Your task to perform on an android device: turn off priority inbox in the gmail app Image 0: 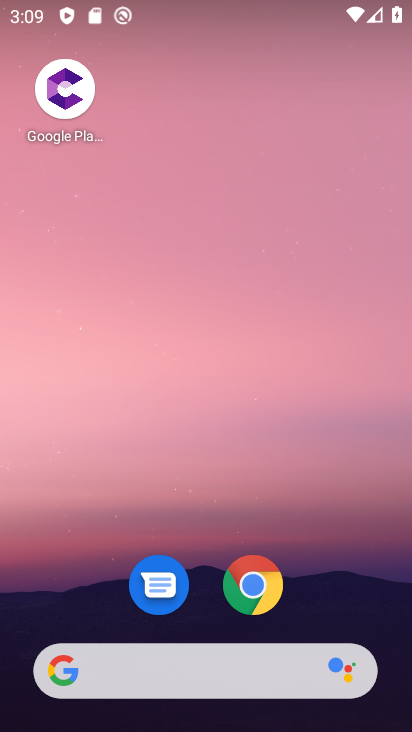
Step 0: drag from (161, 462) to (189, 47)
Your task to perform on an android device: turn off priority inbox in the gmail app Image 1: 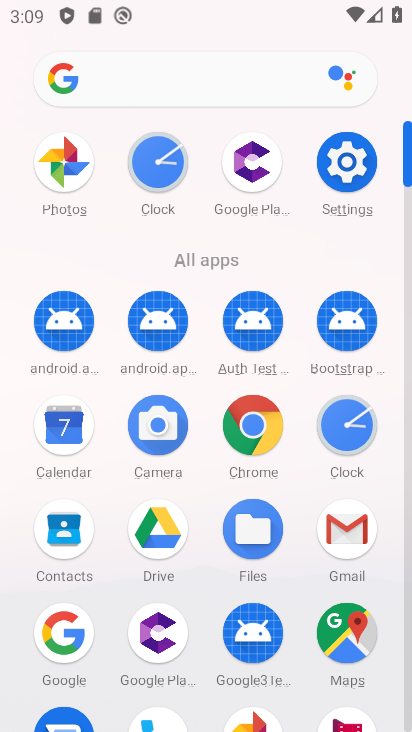
Step 1: click (349, 536)
Your task to perform on an android device: turn off priority inbox in the gmail app Image 2: 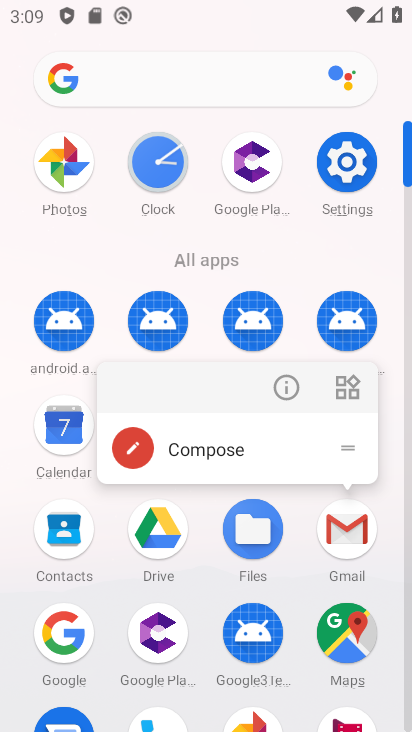
Step 2: click (351, 526)
Your task to perform on an android device: turn off priority inbox in the gmail app Image 3: 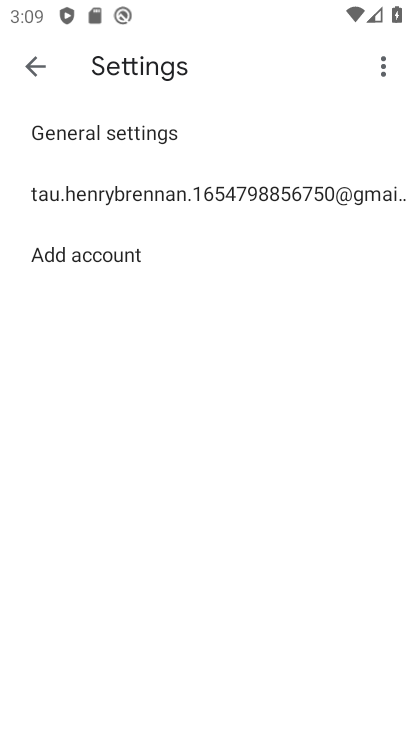
Step 3: click (239, 184)
Your task to perform on an android device: turn off priority inbox in the gmail app Image 4: 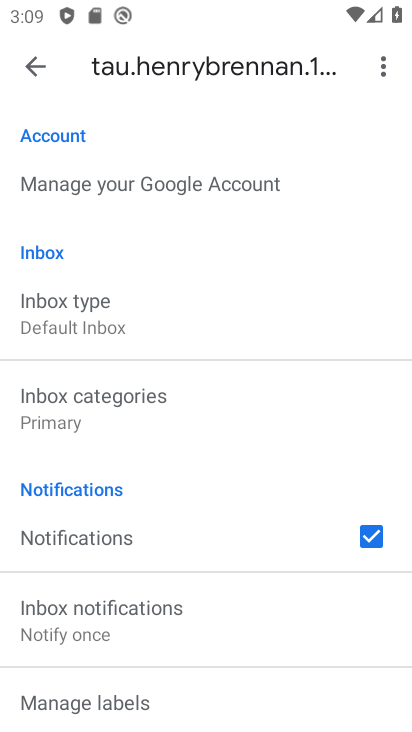
Step 4: click (94, 312)
Your task to perform on an android device: turn off priority inbox in the gmail app Image 5: 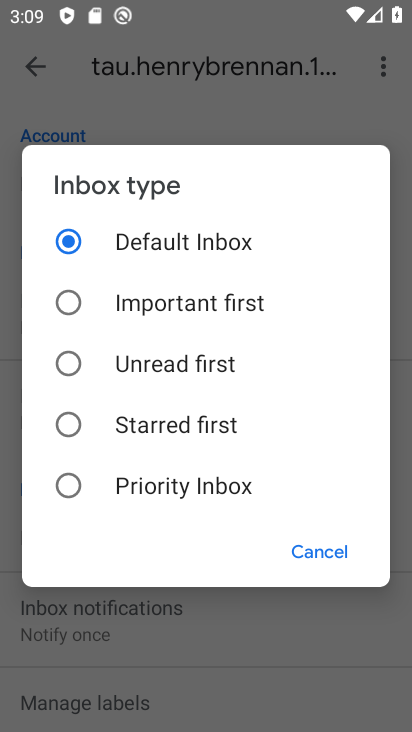
Step 5: click (314, 556)
Your task to perform on an android device: turn off priority inbox in the gmail app Image 6: 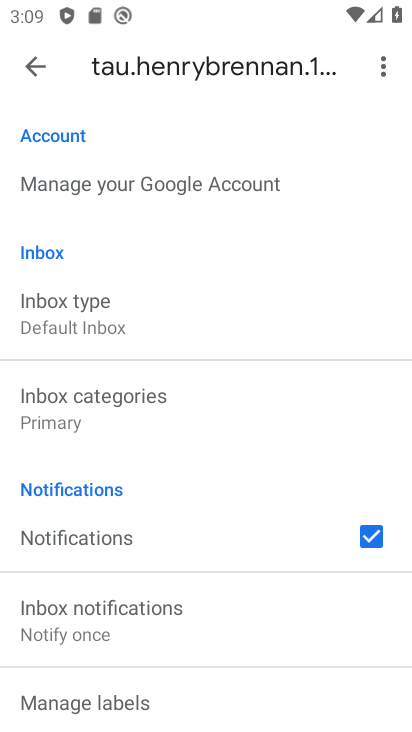
Step 6: task complete